Your task to perform on an android device: Search for "apple airpods pro" on walmart, select the first entry, and add it to the cart. Image 0: 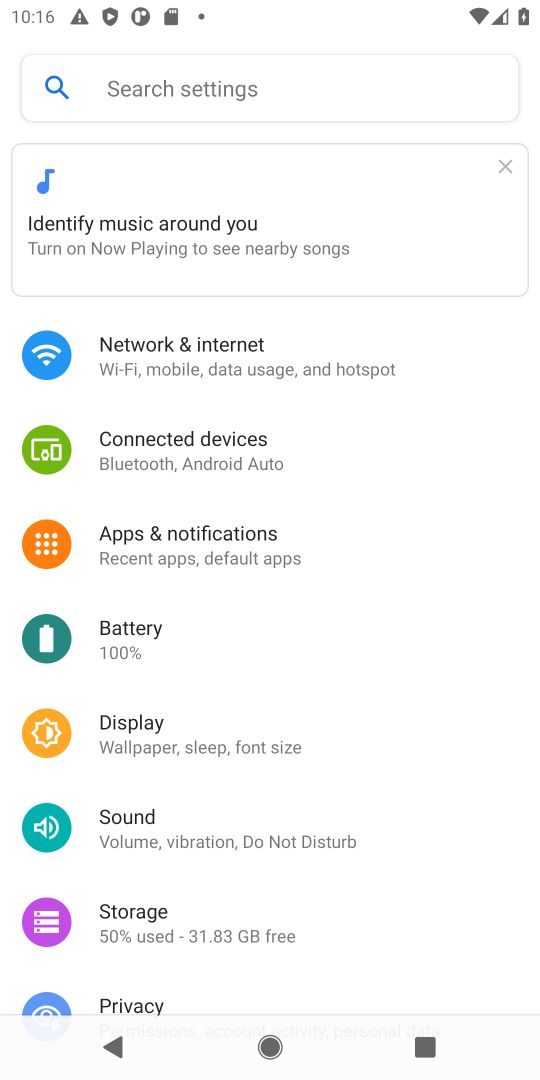
Step 0: press home button
Your task to perform on an android device: Search for "apple airpods pro" on walmart, select the first entry, and add it to the cart. Image 1: 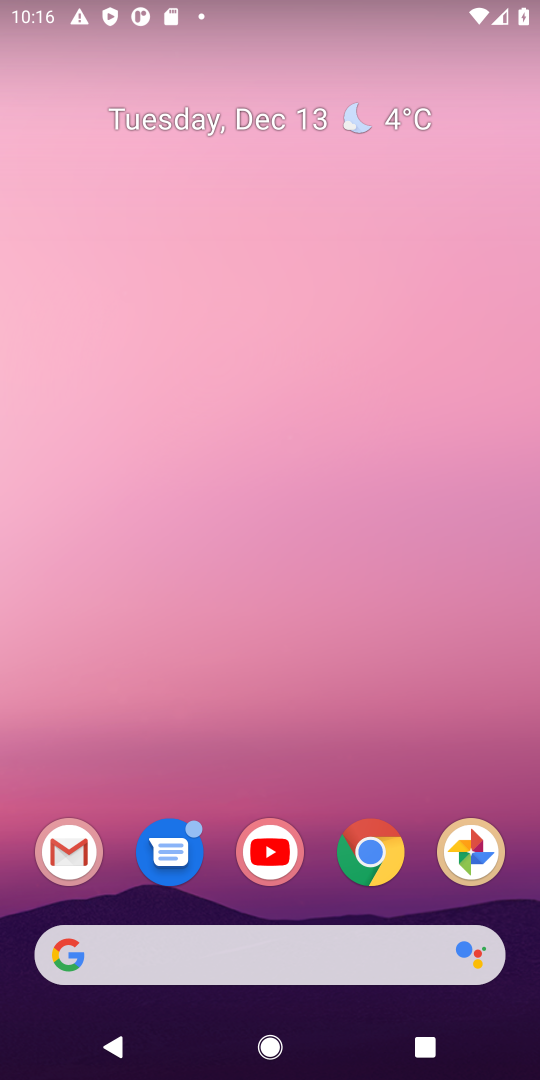
Step 1: click (176, 955)
Your task to perform on an android device: Search for "apple airpods pro" on walmart, select the first entry, and add it to the cart. Image 2: 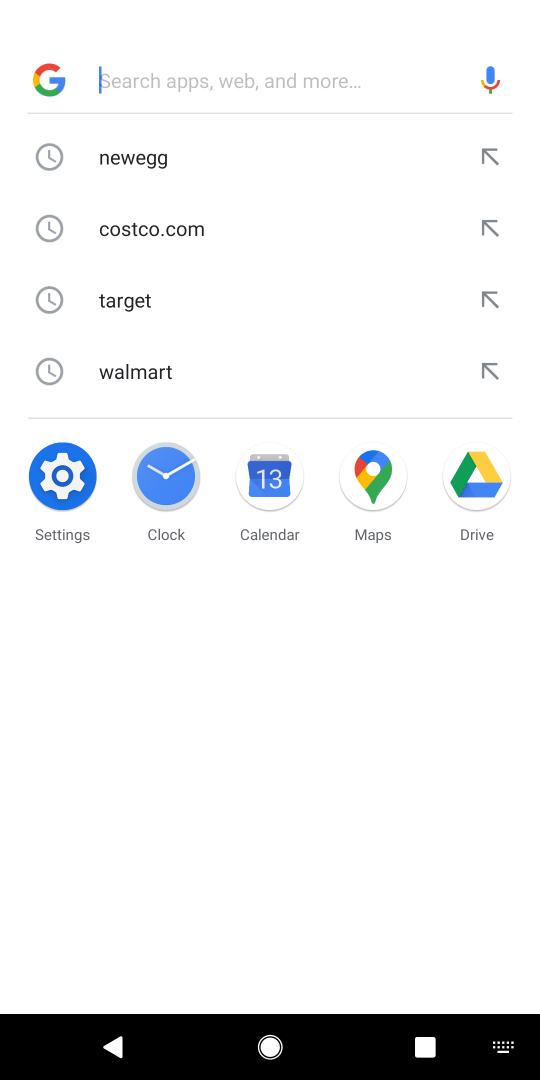
Step 2: type "walmart"
Your task to perform on an android device: Search for "apple airpods pro" on walmart, select the first entry, and add it to the cart. Image 3: 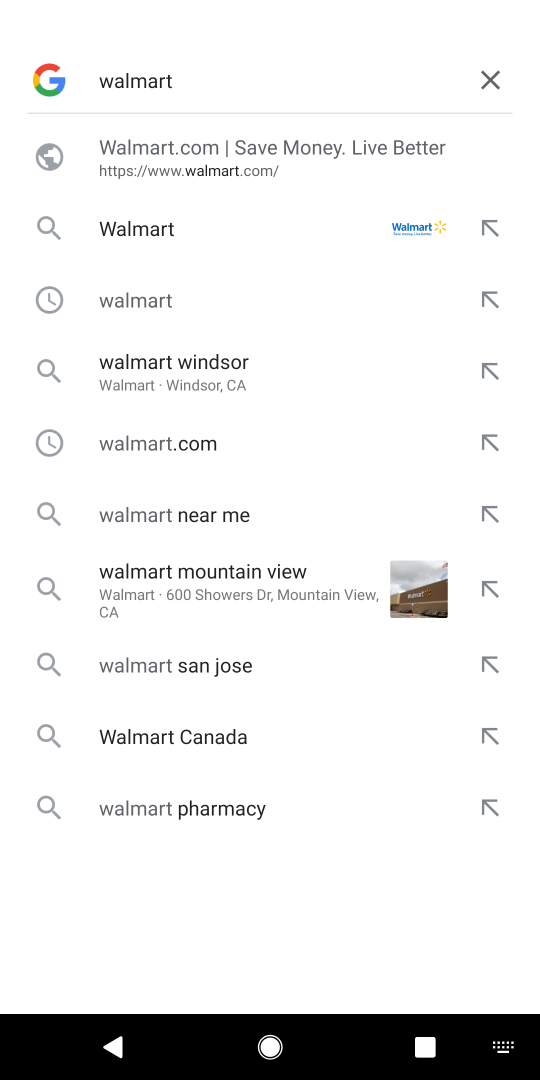
Step 3: press enter
Your task to perform on an android device: Search for "apple airpods pro" on walmart, select the first entry, and add it to the cart. Image 4: 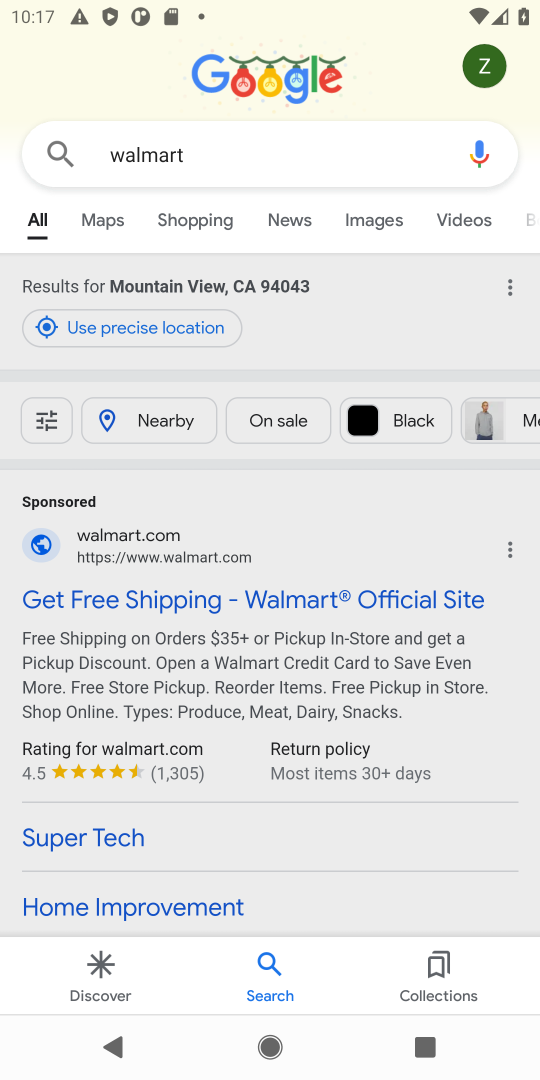
Step 4: click (252, 602)
Your task to perform on an android device: Search for "apple airpods pro" on walmart, select the first entry, and add it to the cart. Image 5: 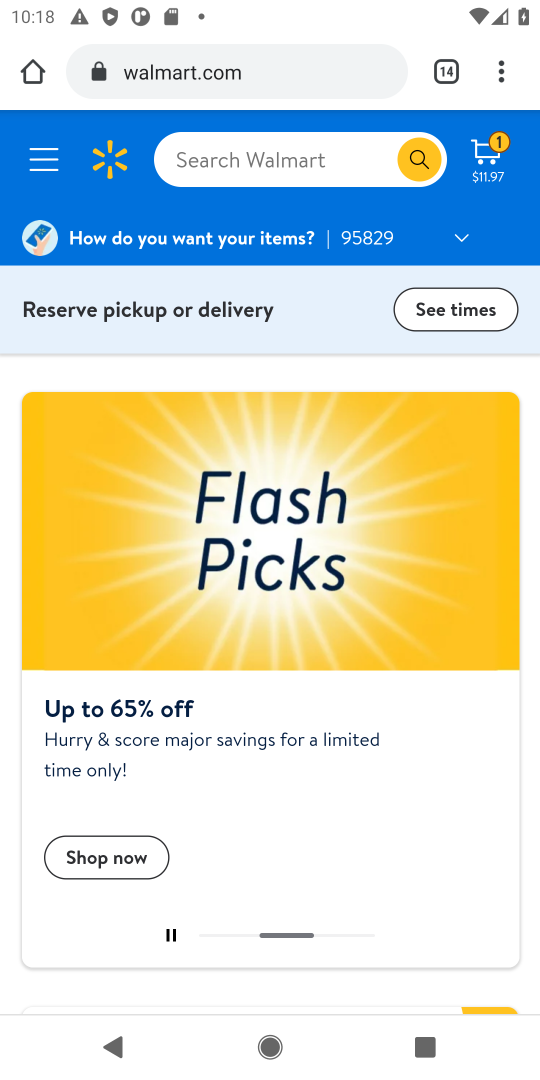
Step 5: click (271, 156)
Your task to perform on an android device: Search for "apple airpods pro" on walmart, select the first entry, and add it to the cart. Image 6: 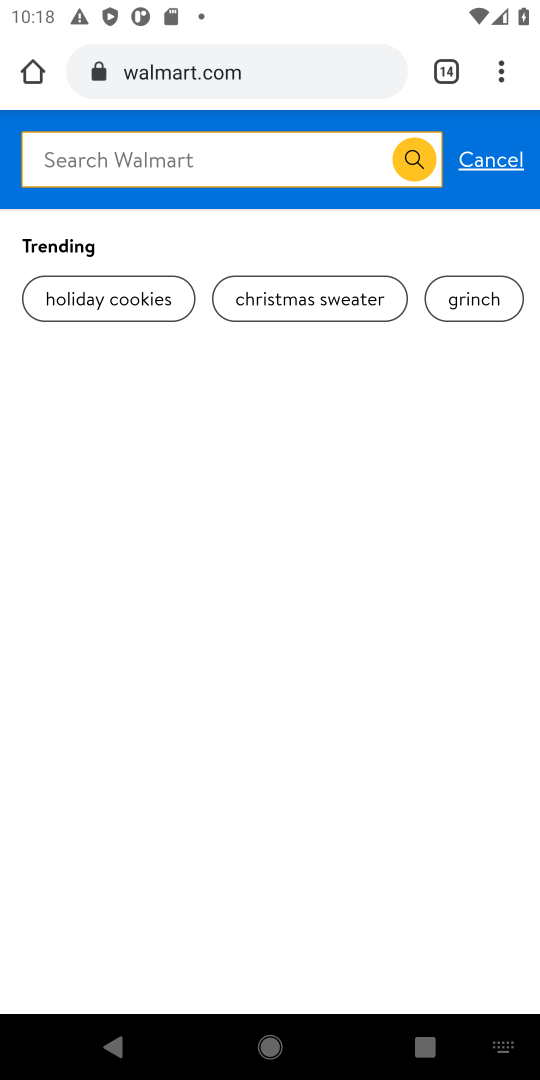
Step 6: type "apple airpods pro"
Your task to perform on an android device: Search for "apple airpods pro" on walmart, select the first entry, and add it to the cart. Image 7: 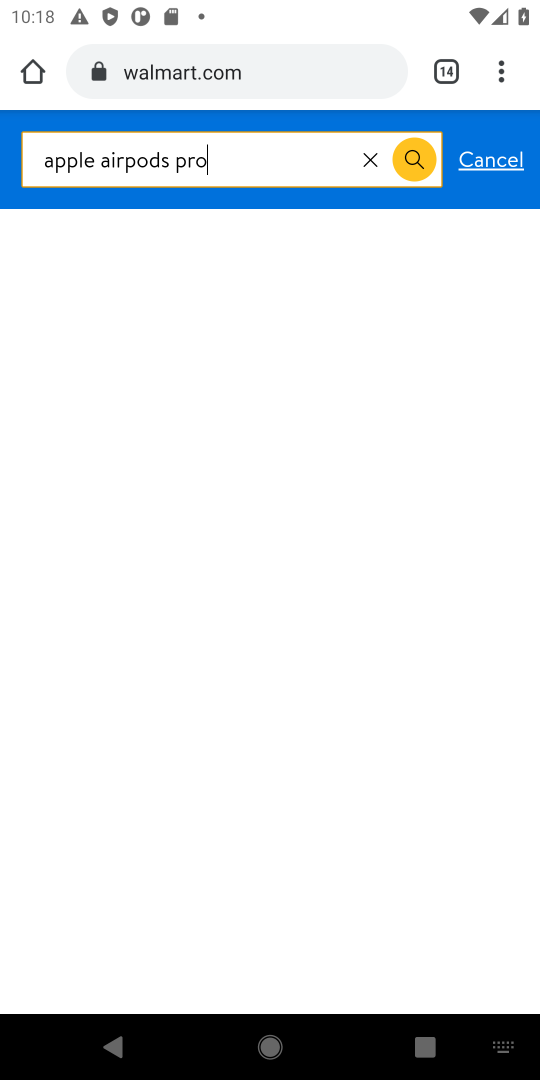
Step 7: press enter
Your task to perform on an android device: Search for "apple airpods pro" on walmart, select the first entry, and add it to the cart. Image 8: 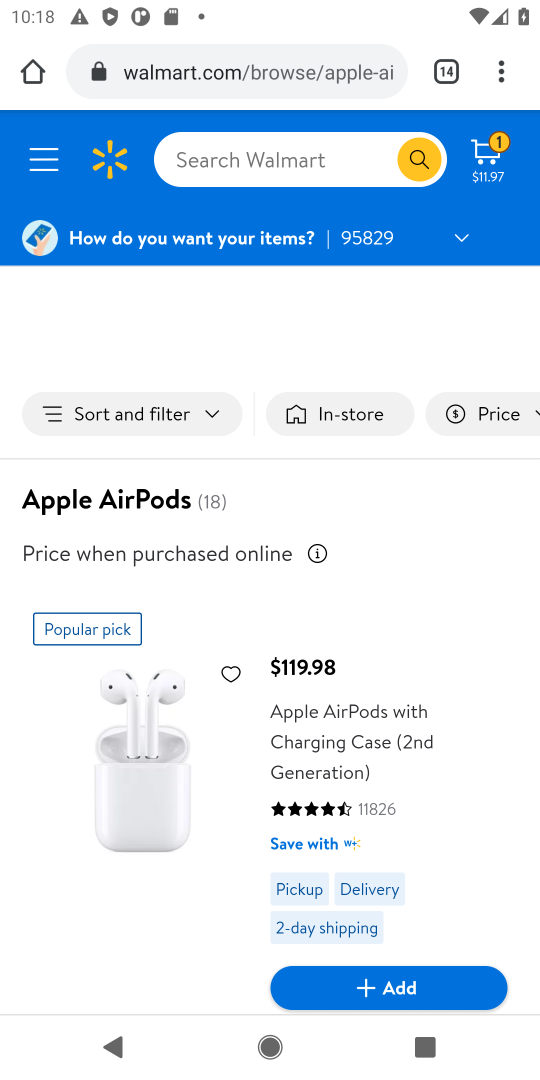
Step 8: click (396, 996)
Your task to perform on an android device: Search for "apple airpods pro" on walmart, select the first entry, and add it to the cart. Image 9: 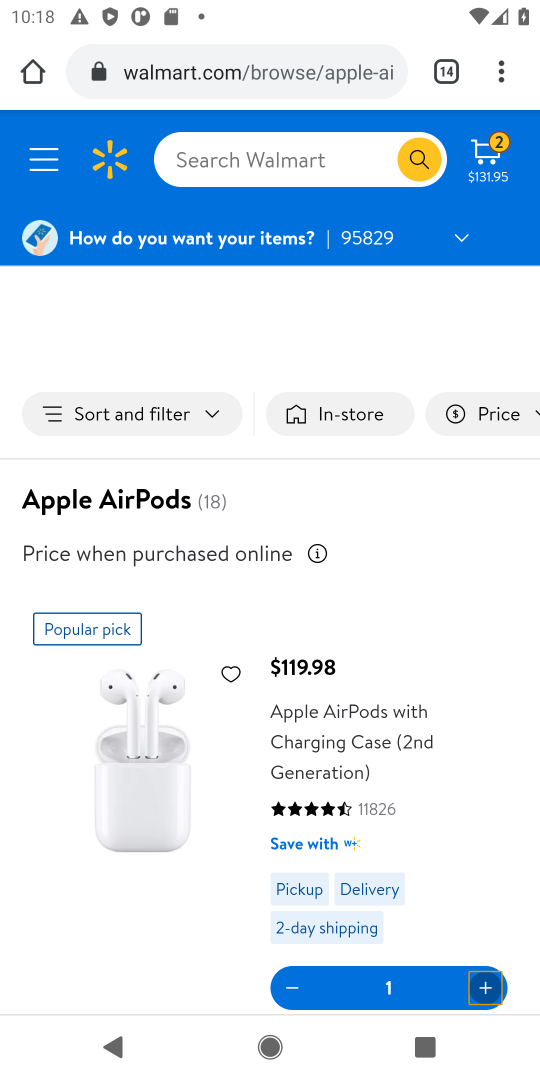
Step 9: task complete